Your task to perform on an android device: Show me popular games on the Play Store Image 0: 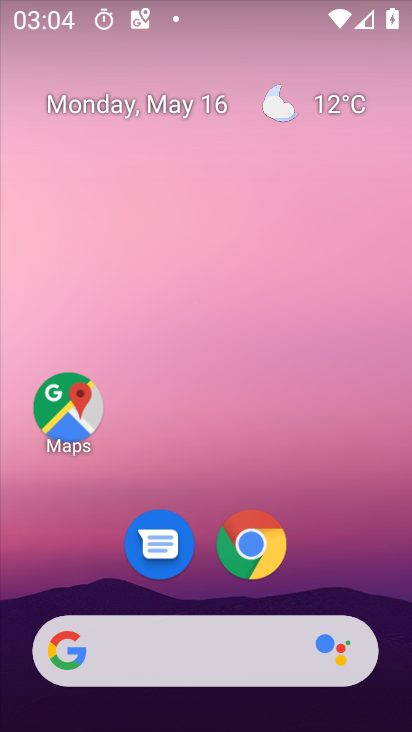
Step 0: drag from (219, 726) to (258, 42)
Your task to perform on an android device: Show me popular games on the Play Store Image 1: 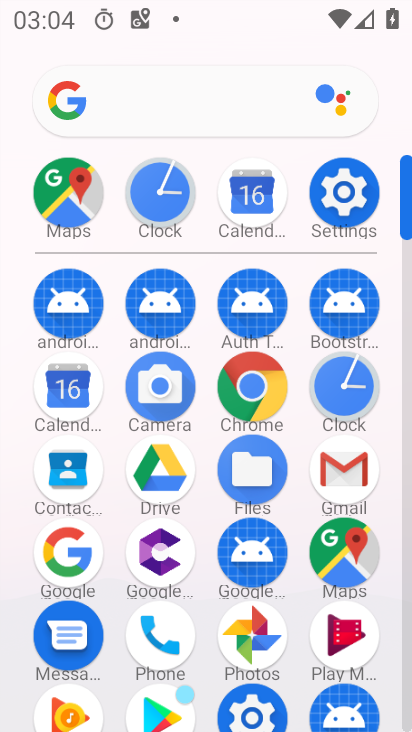
Step 1: drag from (194, 666) to (208, 318)
Your task to perform on an android device: Show me popular games on the Play Store Image 2: 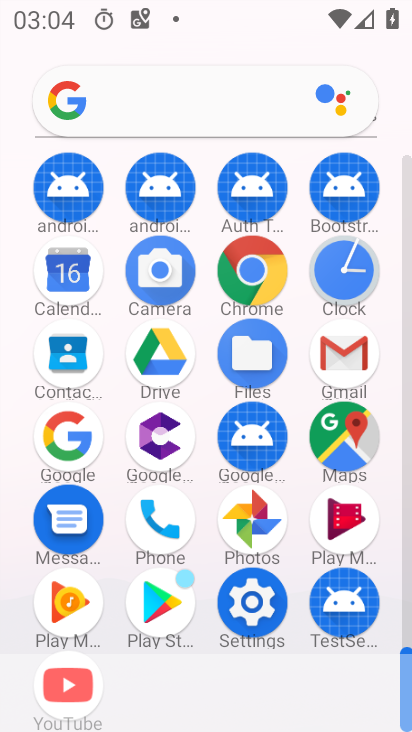
Step 2: click (157, 606)
Your task to perform on an android device: Show me popular games on the Play Store Image 3: 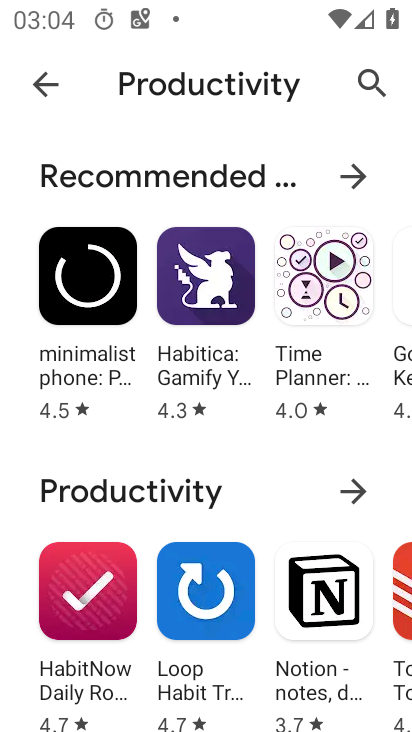
Step 3: click (46, 80)
Your task to perform on an android device: Show me popular games on the Play Store Image 4: 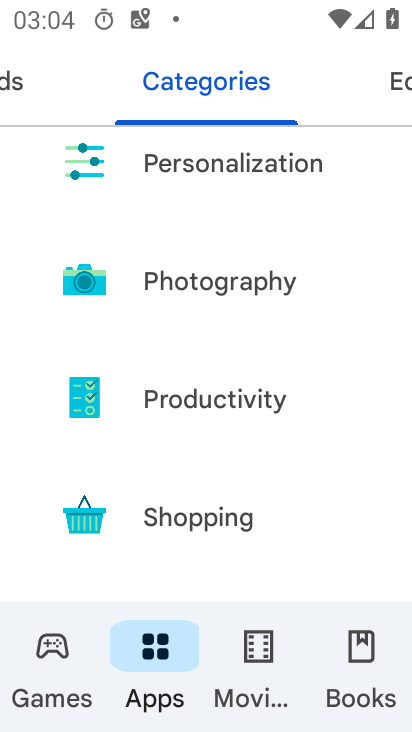
Step 4: click (50, 650)
Your task to perform on an android device: Show me popular games on the Play Store Image 5: 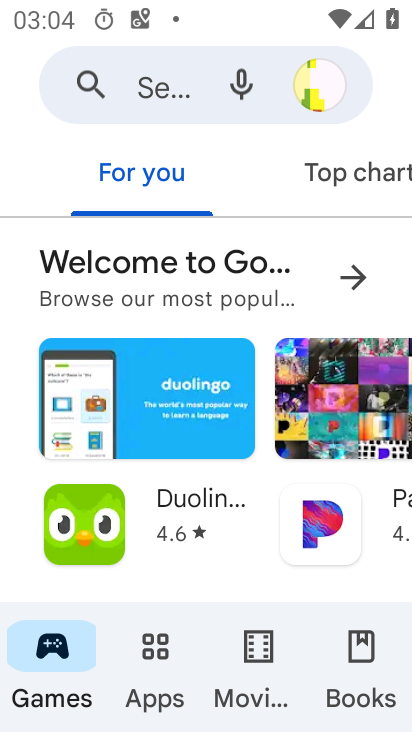
Step 5: click (275, 288)
Your task to perform on an android device: Show me popular games on the Play Store Image 6: 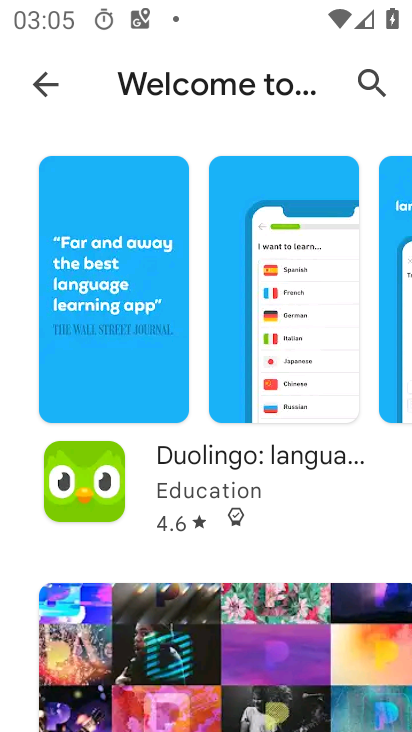
Step 6: task complete